Your task to perform on an android device: open wifi settings Image 0: 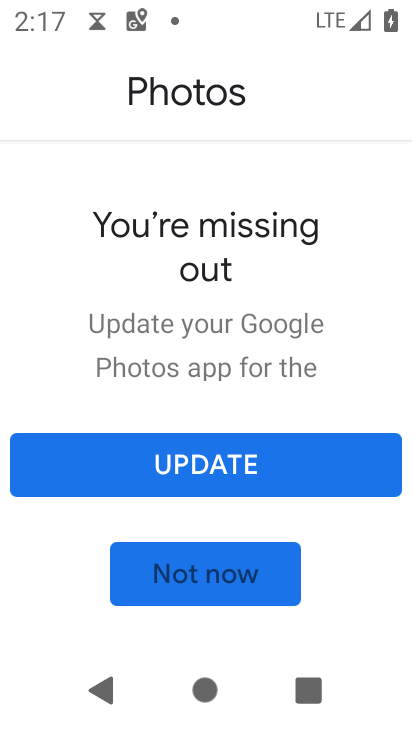
Step 0: press home button
Your task to perform on an android device: open wifi settings Image 1: 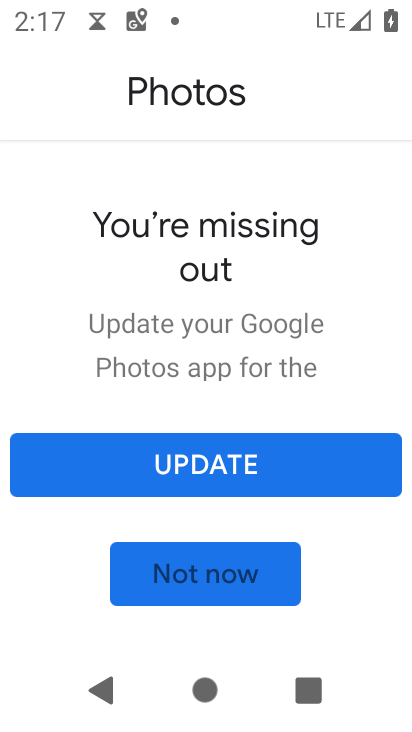
Step 1: press home button
Your task to perform on an android device: open wifi settings Image 2: 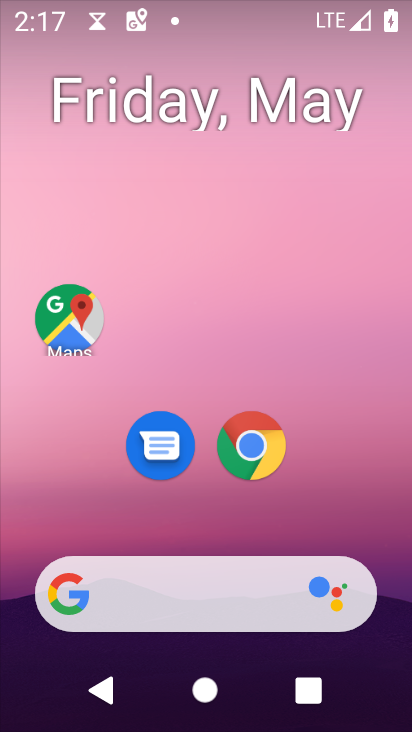
Step 2: drag from (214, 516) to (216, 77)
Your task to perform on an android device: open wifi settings Image 3: 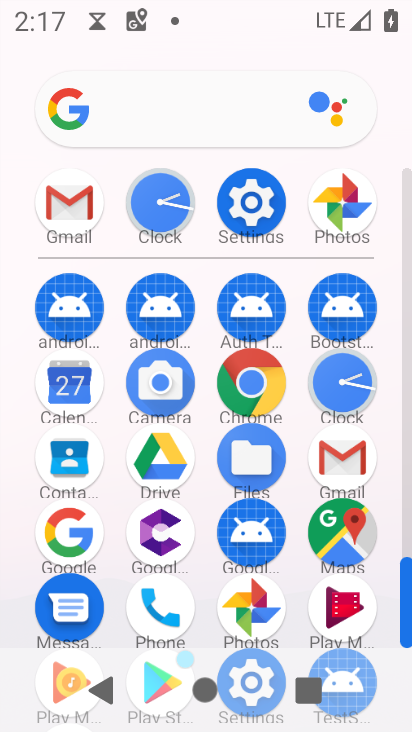
Step 3: drag from (218, 11) to (212, 555)
Your task to perform on an android device: open wifi settings Image 4: 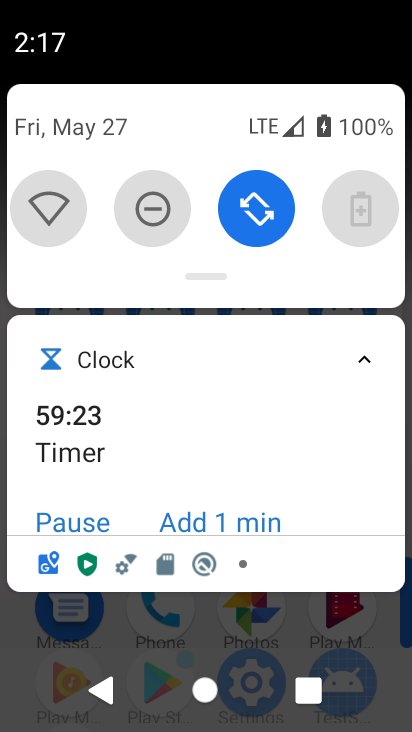
Step 4: click (193, 634)
Your task to perform on an android device: open wifi settings Image 5: 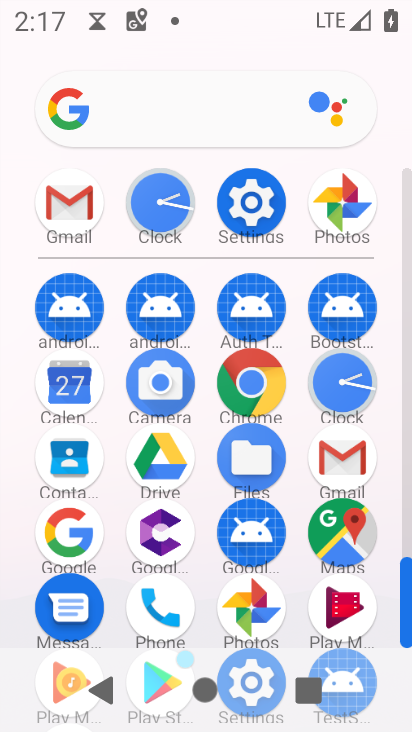
Step 5: click (249, 196)
Your task to perform on an android device: open wifi settings Image 6: 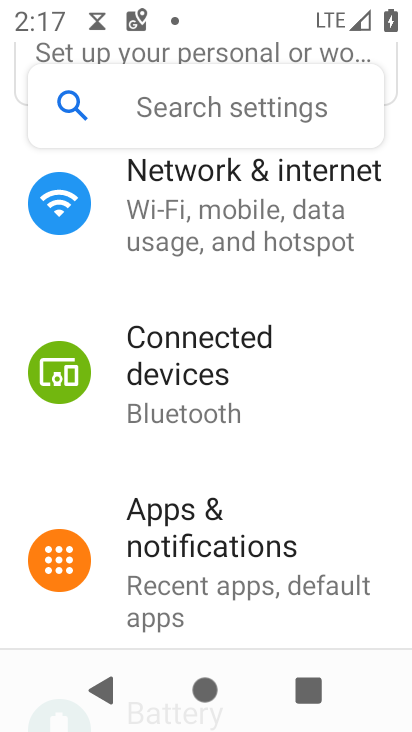
Step 6: click (109, 213)
Your task to perform on an android device: open wifi settings Image 7: 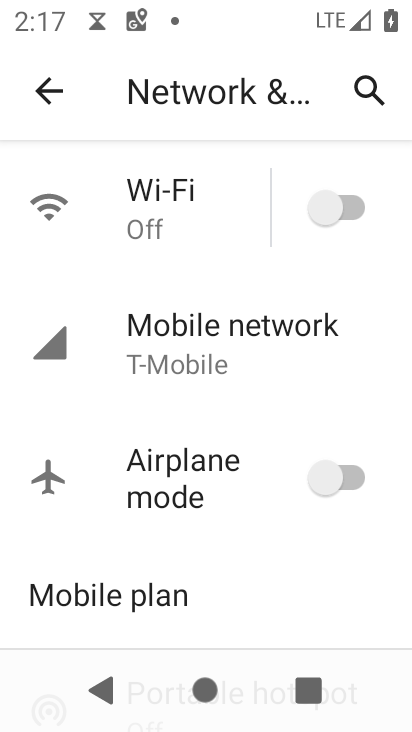
Step 7: click (214, 202)
Your task to perform on an android device: open wifi settings Image 8: 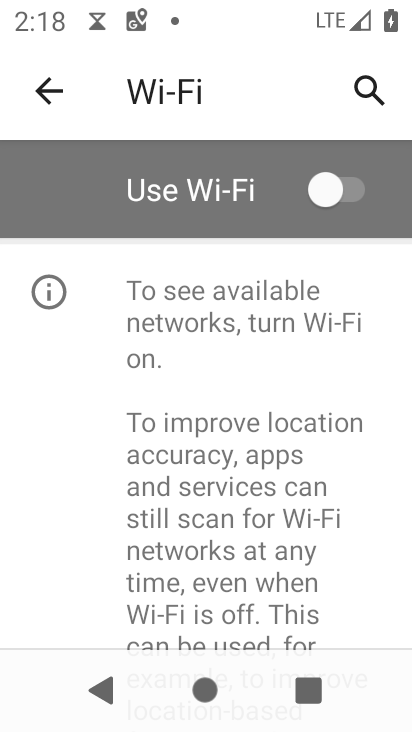
Step 8: click (343, 187)
Your task to perform on an android device: open wifi settings Image 9: 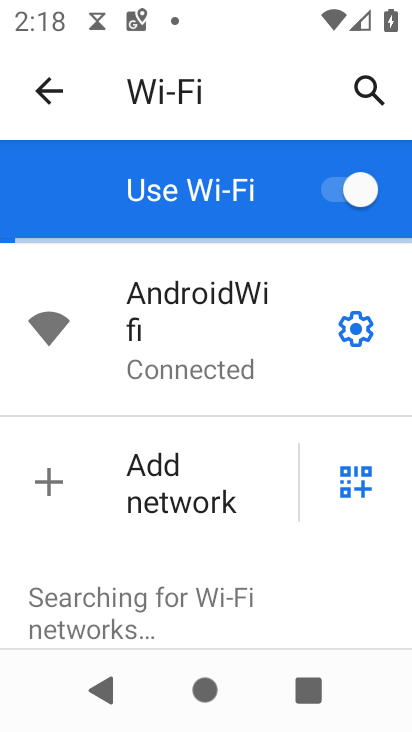
Step 9: task complete